Your task to perform on an android device: What's a good restaurant in Seattle? Image 0: 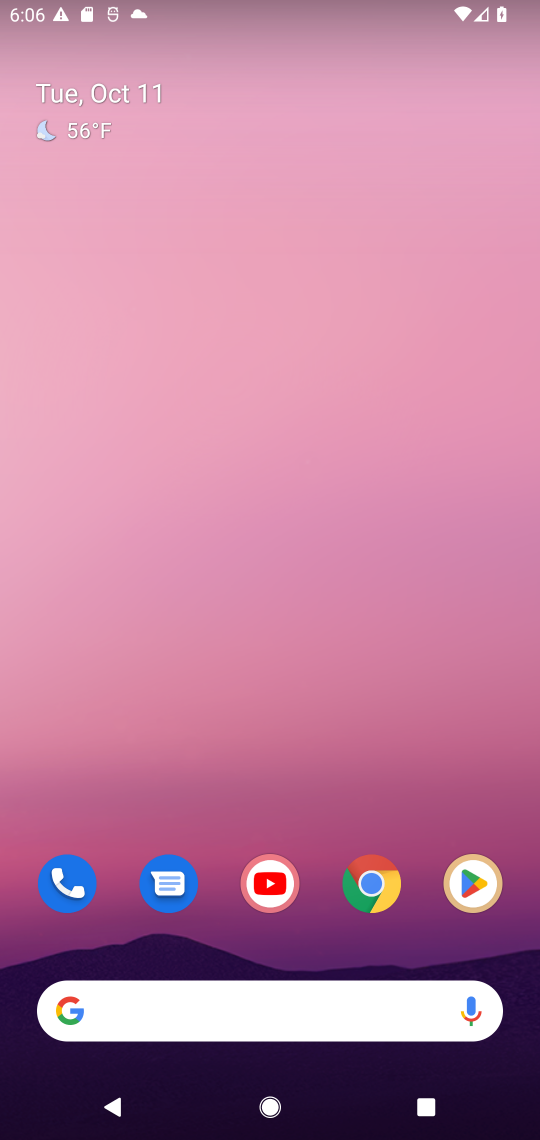
Step 0: drag from (334, 868) to (330, 65)
Your task to perform on an android device: What's a good restaurant in Seattle? Image 1: 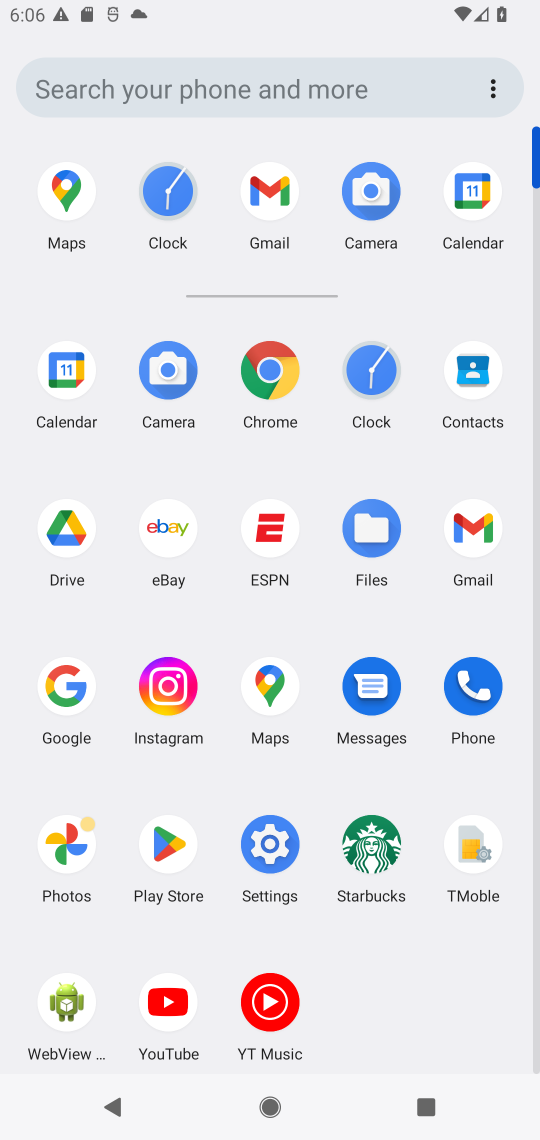
Step 1: click (273, 372)
Your task to perform on an android device: What's a good restaurant in Seattle? Image 2: 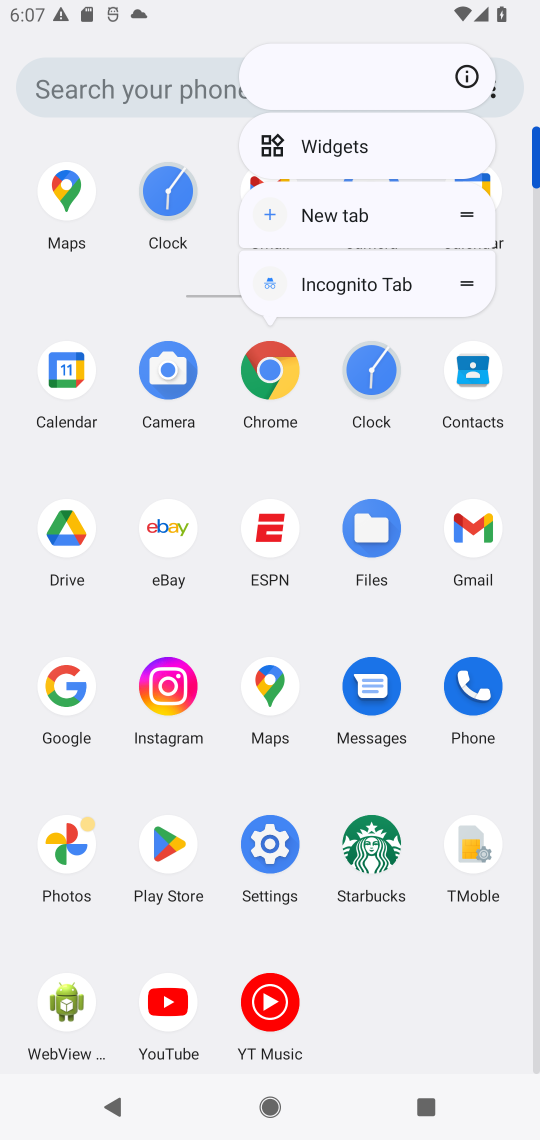
Step 2: click (268, 371)
Your task to perform on an android device: What's a good restaurant in Seattle? Image 3: 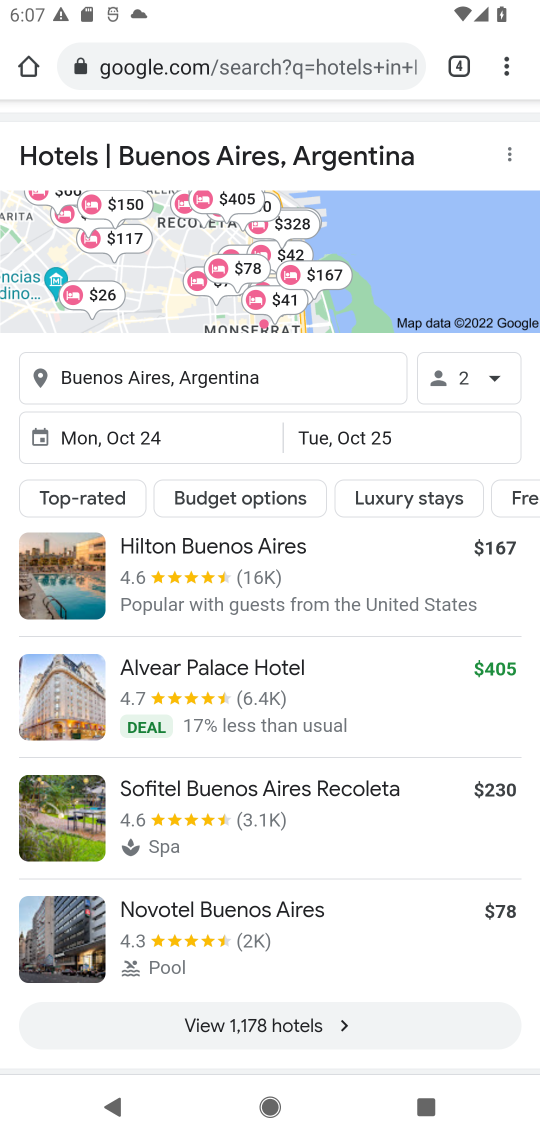
Step 3: click (209, 73)
Your task to perform on an android device: What's a good restaurant in Seattle? Image 4: 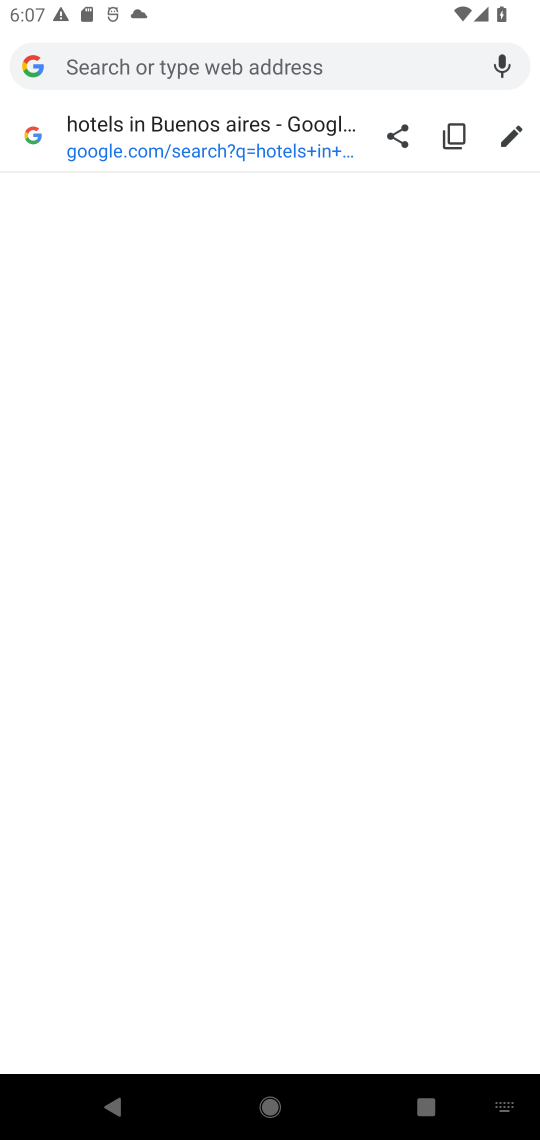
Step 4: type "good restaurants in Seattle"
Your task to perform on an android device: What's a good restaurant in Seattle? Image 5: 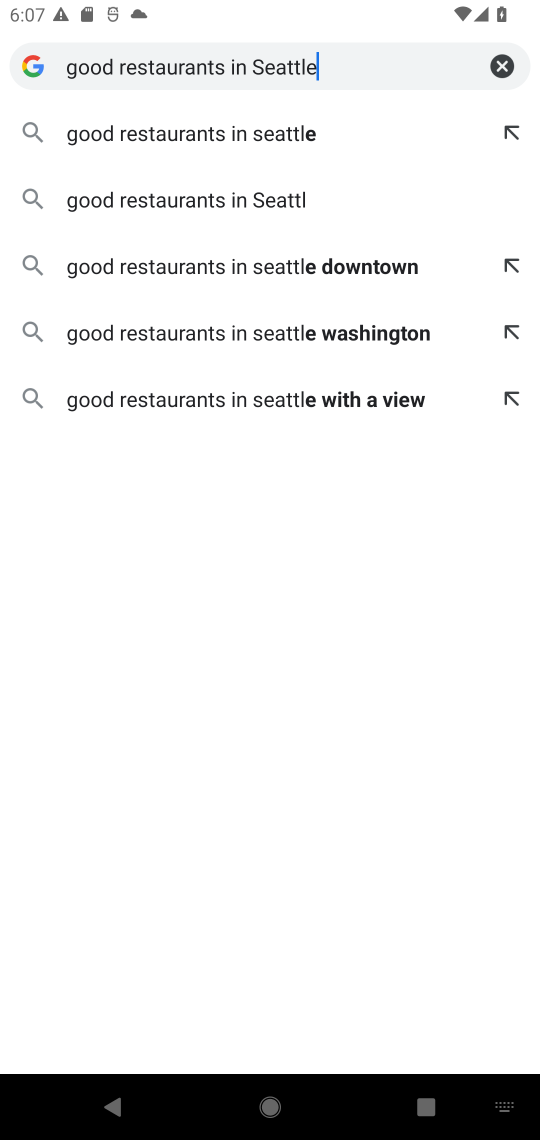
Step 5: type "?"
Your task to perform on an android device: What's a good restaurant in Seattle? Image 6: 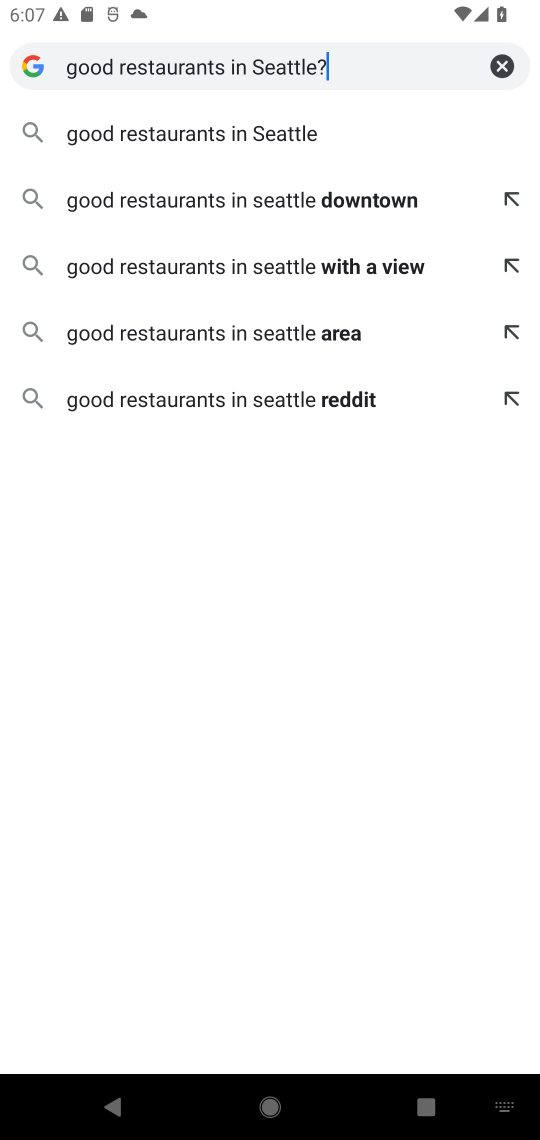
Step 6: press enter
Your task to perform on an android device: What's a good restaurant in Seattle? Image 7: 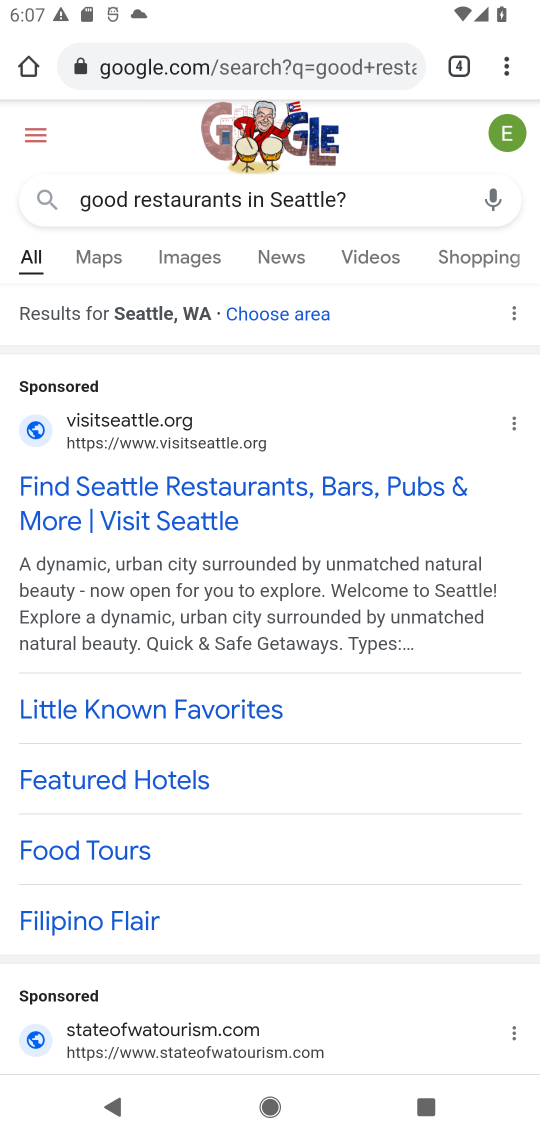
Step 7: task complete